Your task to perform on an android device: turn off javascript in the chrome app Image 0: 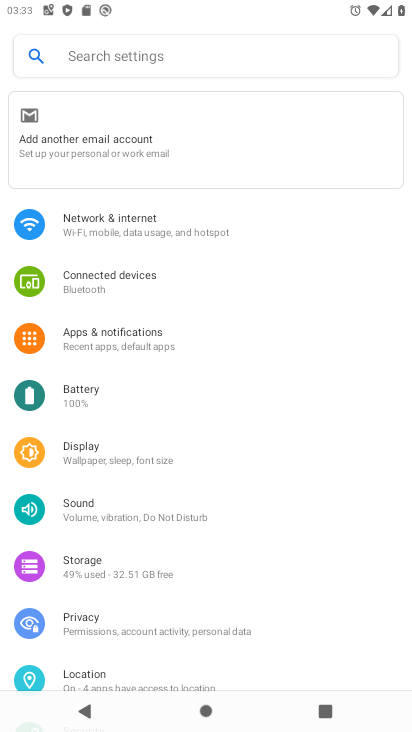
Step 0: press home button
Your task to perform on an android device: turn off javascript in the chrome app Image 1: 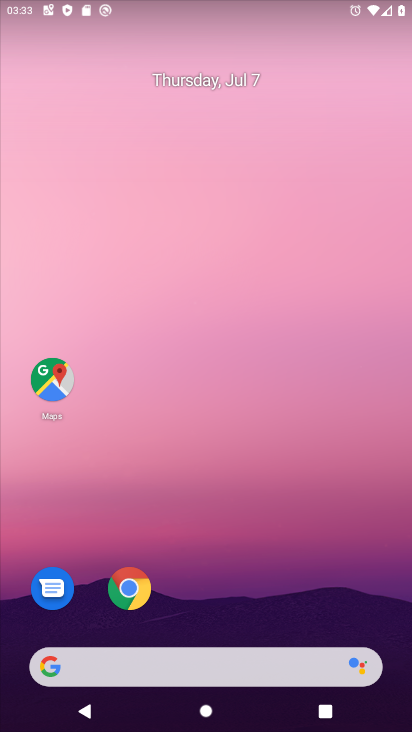
Step 1: click (136, 598)
Your task to perform on an android device: turn off javascript in the chrome app Image 2: 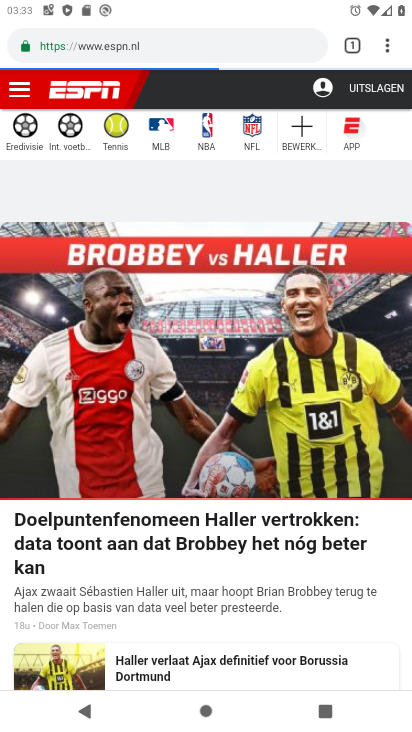
Step 2: click (384, 48)
Your task to perform on an android device: turn off javascript in the chrome app Image 3: 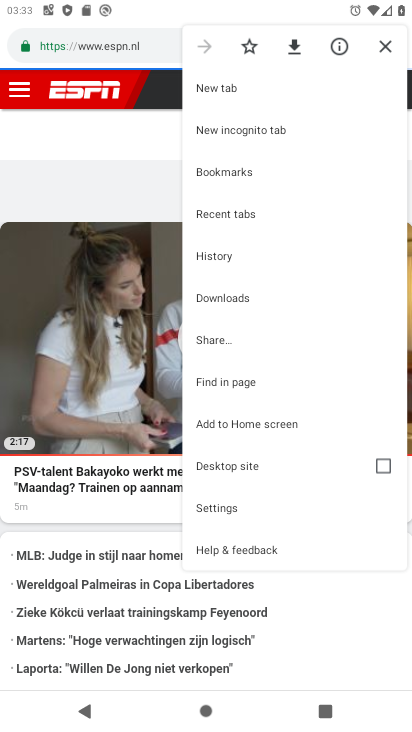
Step 3: click (201, 511)
Your task to perform on an android device: turn off javascript in the chrome app Image 4: 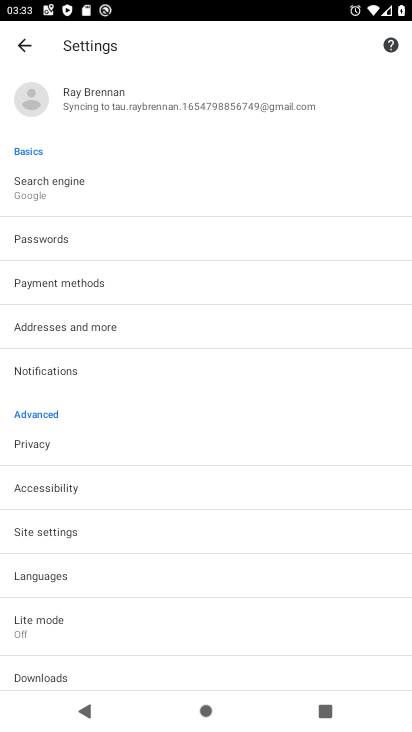
Step 4: click (26, 527)
Your task to perform on an android device: turn off javascript in the chrome app Image 5: 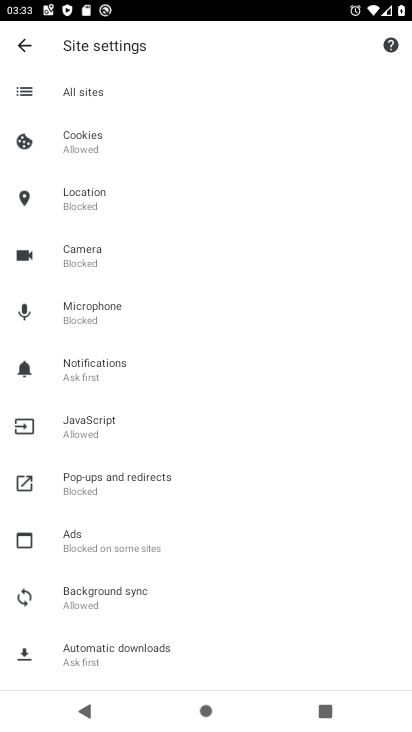
Step 5: click (87, 428)
Your task to perform on an android device: turn off javascript in the chrome app Image 6: 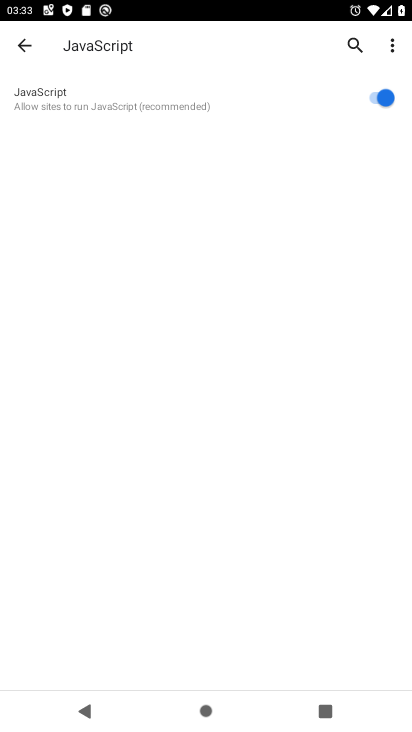
Step 6: click (377, 91)
Your task to perform on an android device: turn off javascript in the chrome app Image 7: 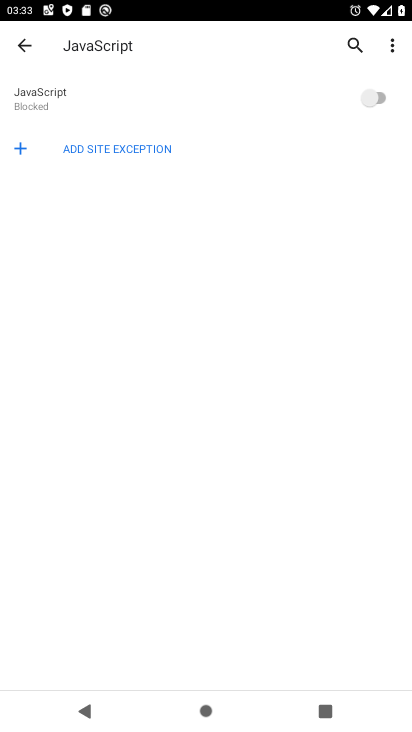
Step 7: task complete